Your task to perform on an android device: turn off picture-in-picture Image 0: 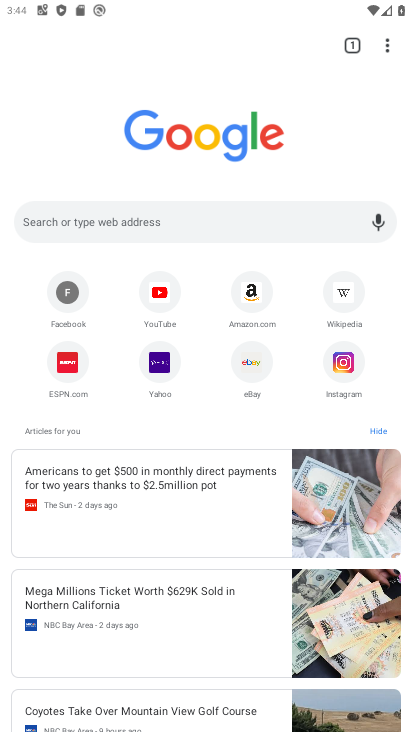
Step 0: press home button
Your task to perform on an android device: turn off picture-in-picture Image 1: 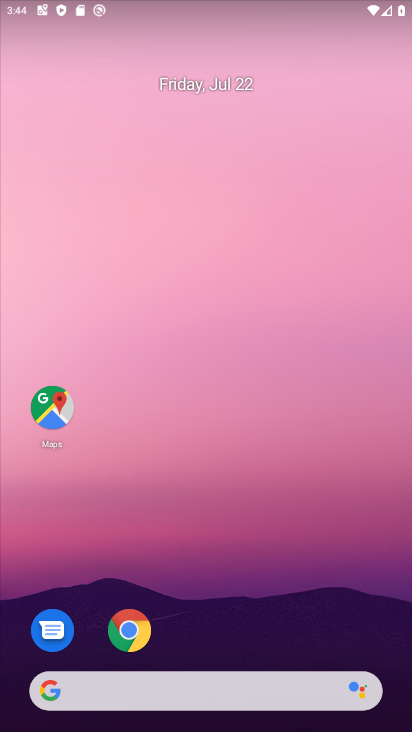
Step 1: click (126, 627)
Your task to perform on an android device: turn off picture-in-picture Image 2: 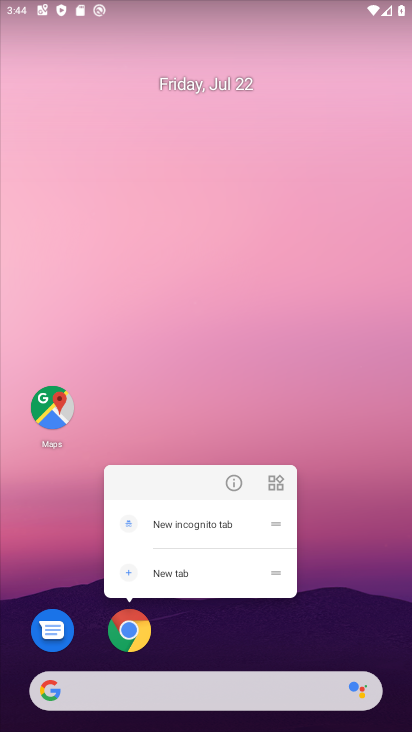
Step 2: click (226, 480)
Your task to perform on an android device: turn off picture-in-picture Image 3: 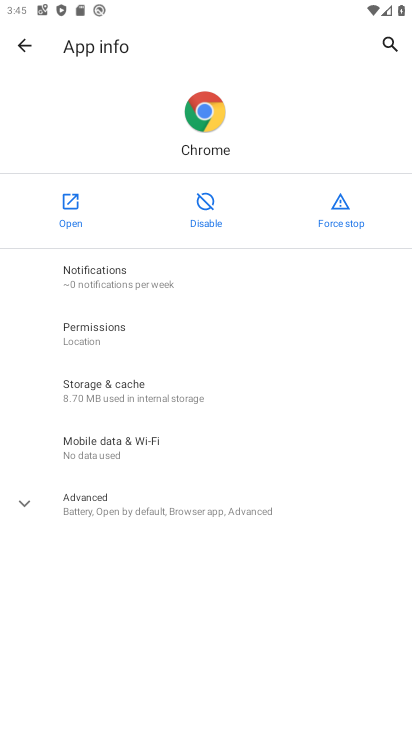
Step 3: press home button
Your task to perform on an android device: turn off picture-in-picture Image 4: 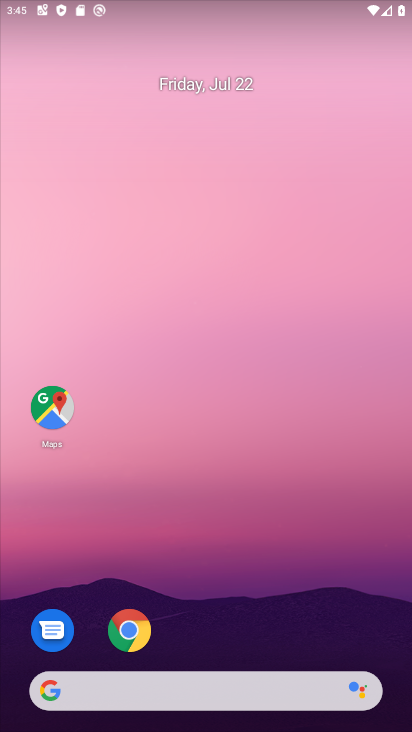
Step 4: click (123, 630)
Your task to perform on an android device: turn off picture-in-picture Image 5: 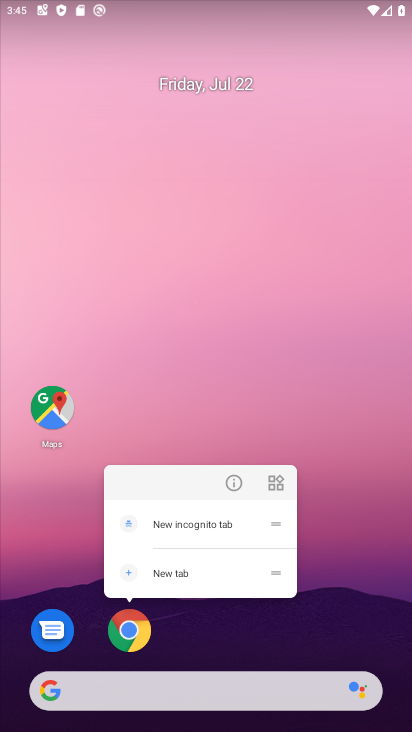
Step 5: click (234, 479)
Your task to perform on an android device: turn off picture-in-picture Image 6: 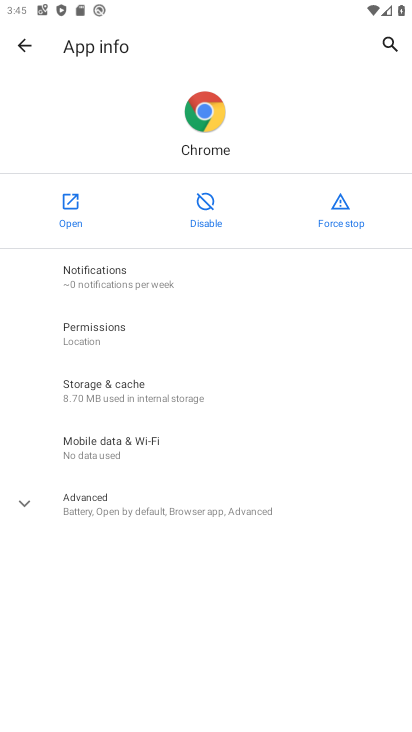
Step 6: press home button
Your task to perform on an android device: turn off picture-in-picture Image 7: 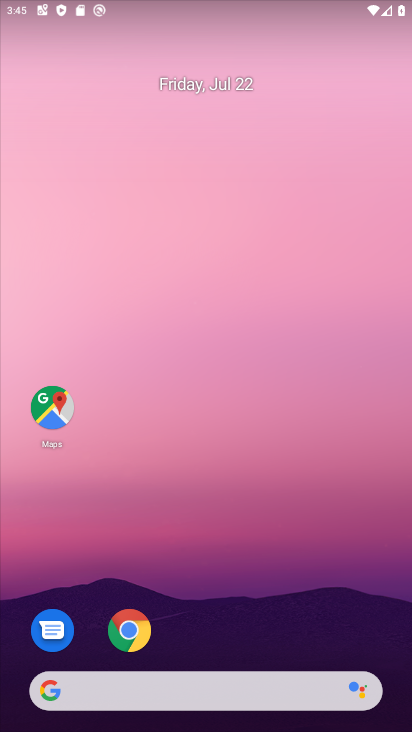
Step 7: click (120, 620)
Your task to perform on an android device: turn off picture-in-picture Image 8: 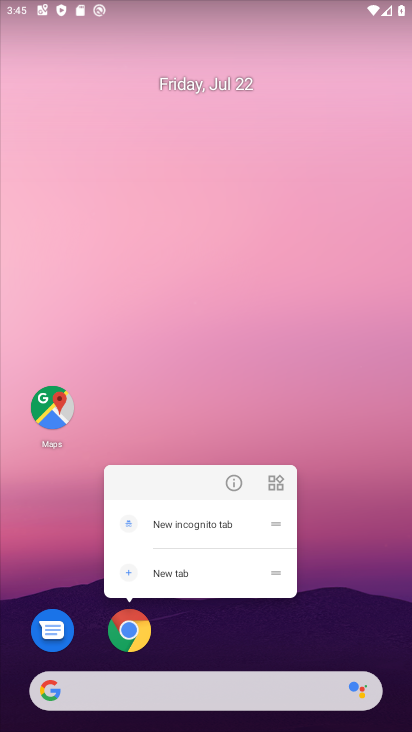
Step 8: click (239, 484)
Your task to perform on an android device: turn off picture-in-picture Image 9: 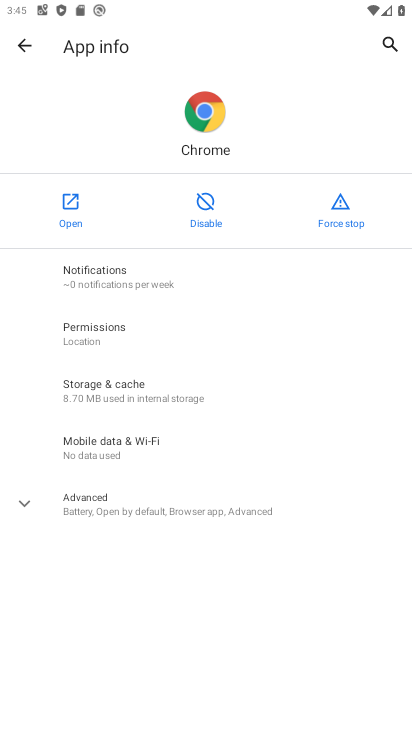
Step 9: click (26, 500)
Your task to perform on an android device: turn off picture-in-picture Image 10: 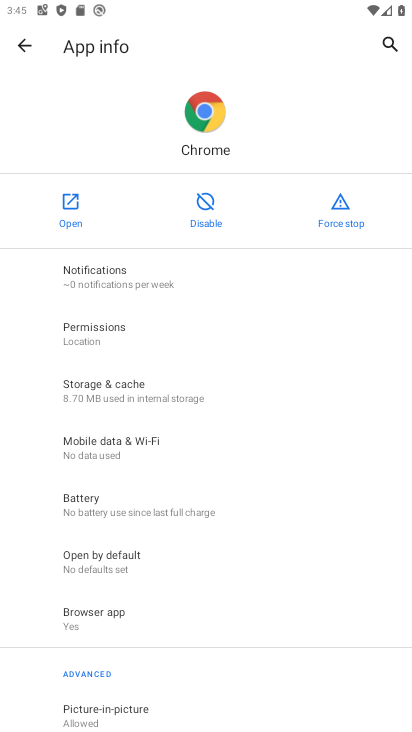
Step 10: drag from (281, 603) to (280, 360)
Your task to perform on an android device: turn off picture-in-picture Image 11: 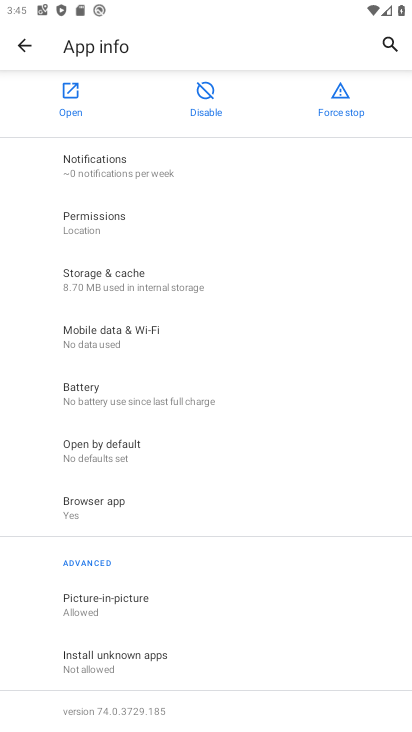
Step 11: click (78, 598)
Your task to perform on an android device: turn off picture-in-picture Image 12: 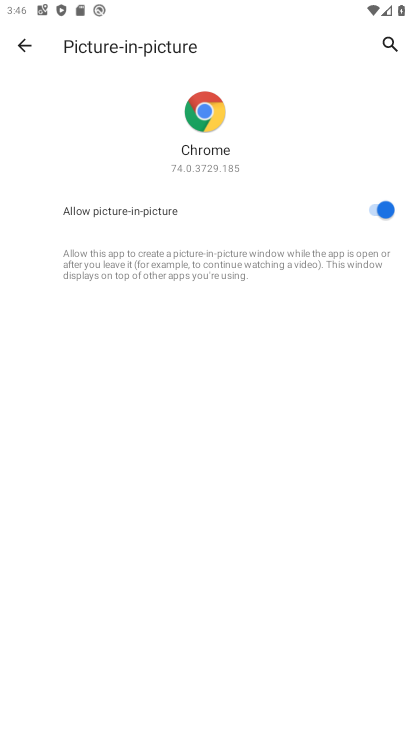
Step 12: click (377, 210)
Your task to perform on an android device: turn off picture-in-picture Image 13: 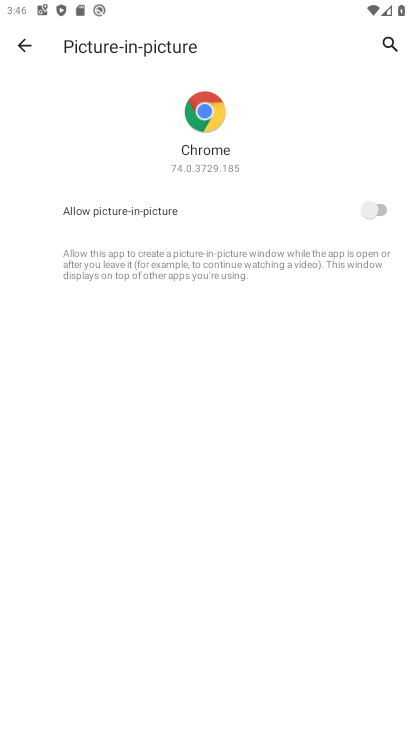
Step 13: task complete